Your task to perform on an android device: Toggle the flashlight Image 0: 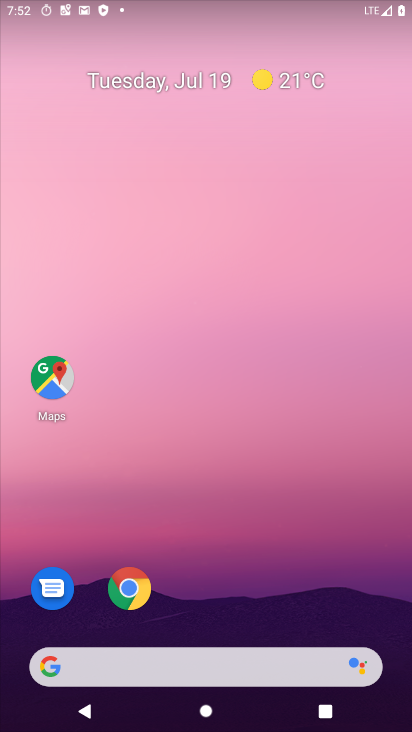
Step 0: task impossible